Your task to perform on an android device: Go to wifi settings Image 0: 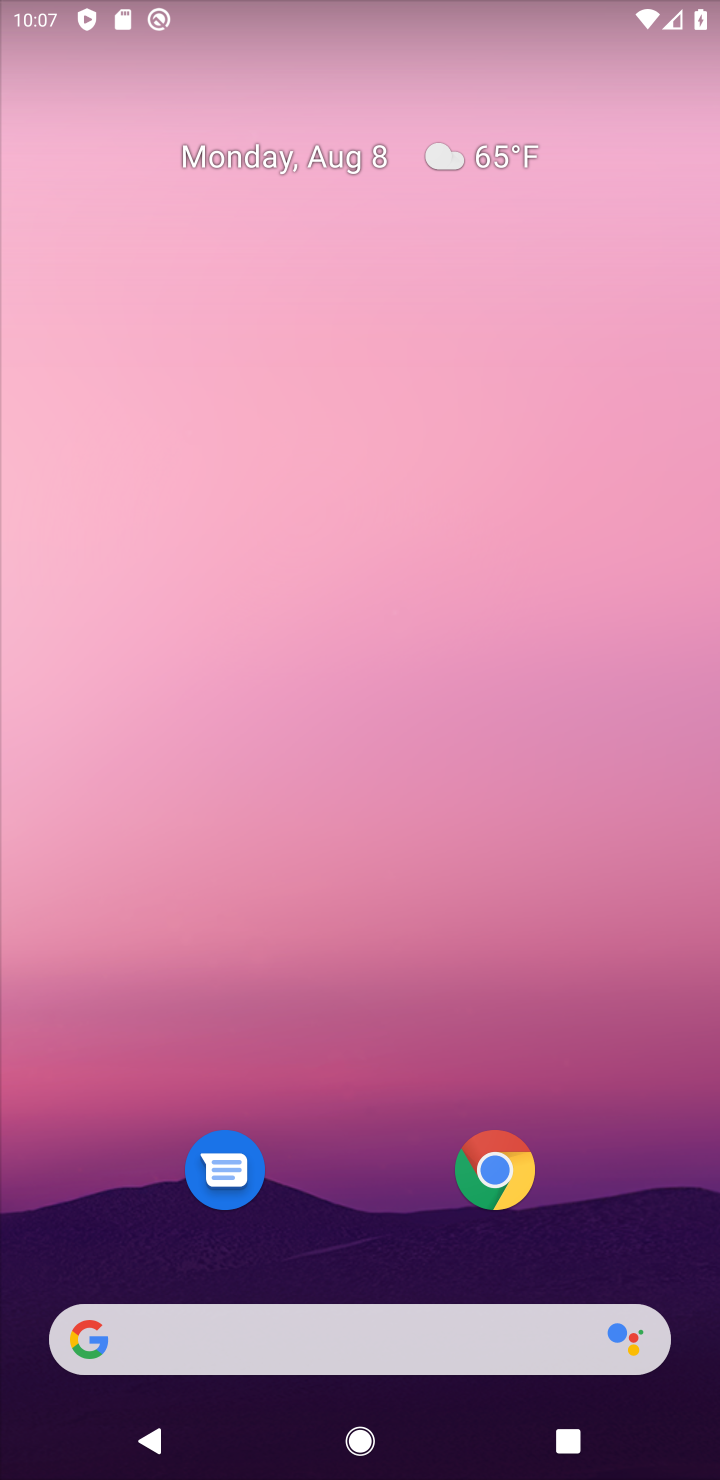
Step 0: drag from (355, 1176) to (452, 142)
Your task to perform on an android device: Go to wifi settings Image 1: 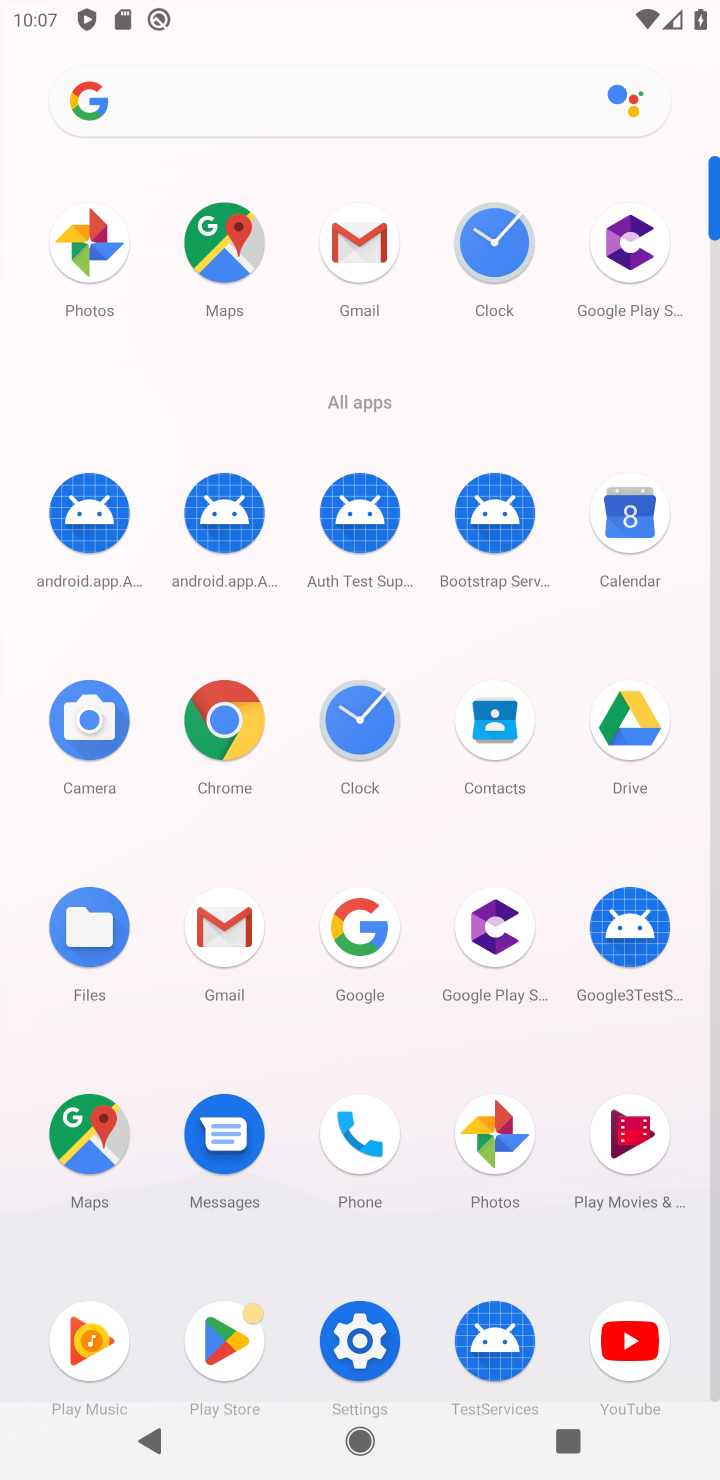
Step 1: click (337, 1361)
Your task to perform on an android device: Go to wifi settings Image 2: 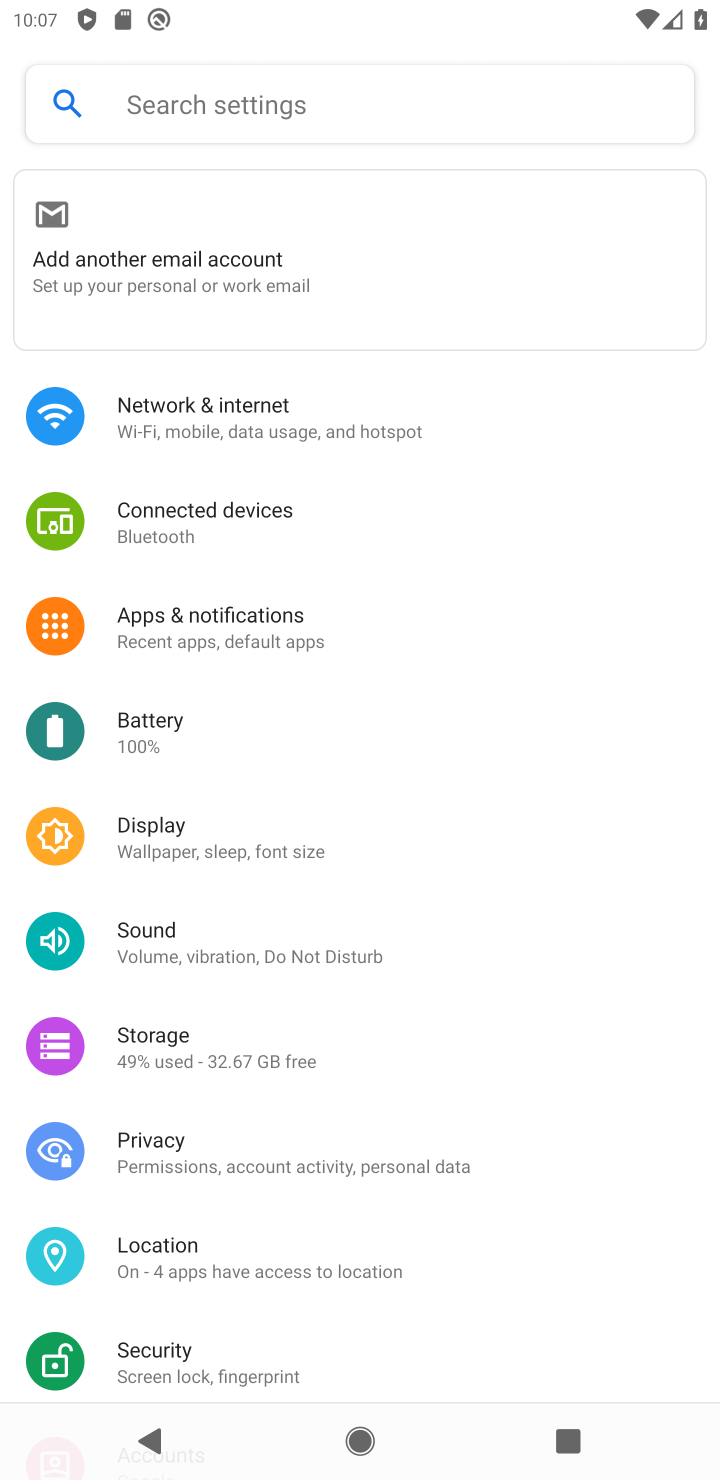
Step 2: click (241, 425)
Your task to perform on an android device: Go to wifi settings Image 3: 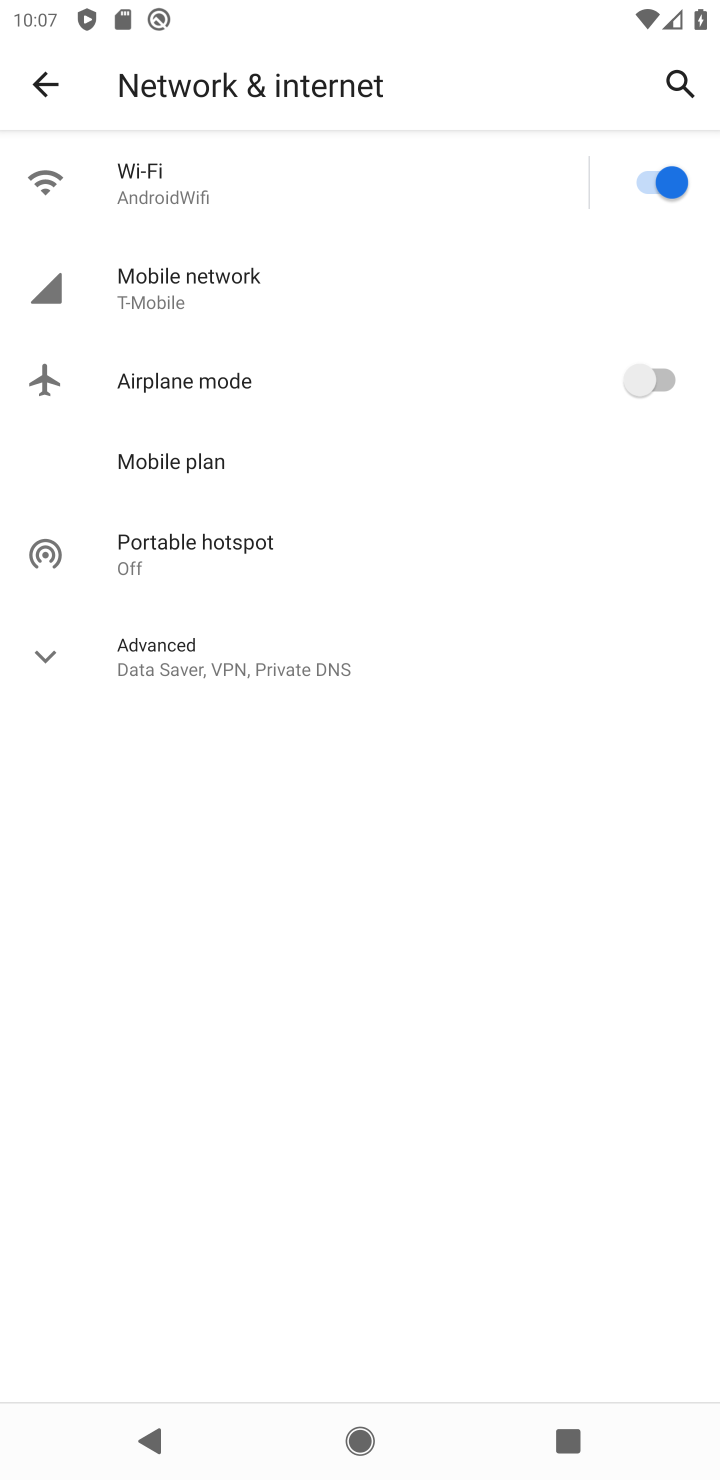
Step 3: click (156, 177)
Your task to perform on an android device: Go to wifi settings Image 4: 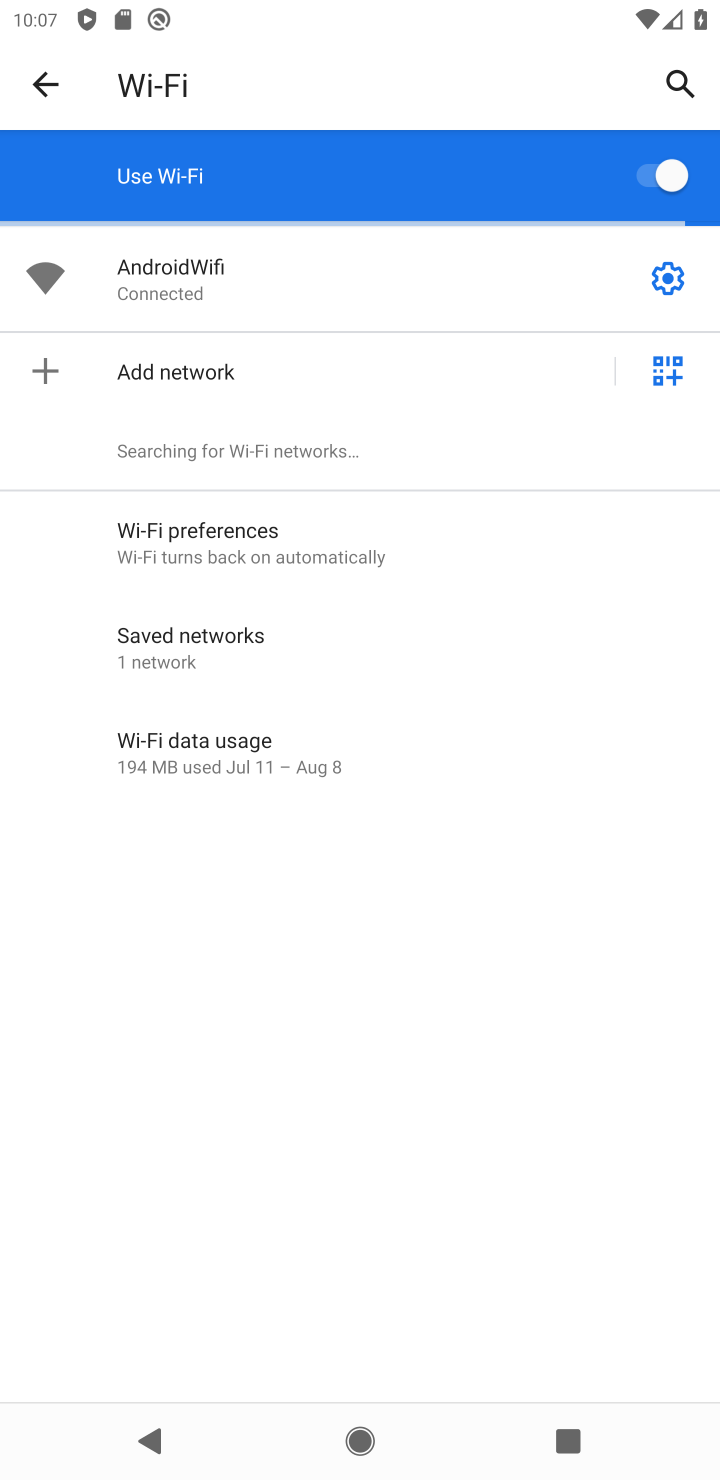
Step 4: click (160, 290)
Your task to perform on an android device: Go to wifi settings Image 5: 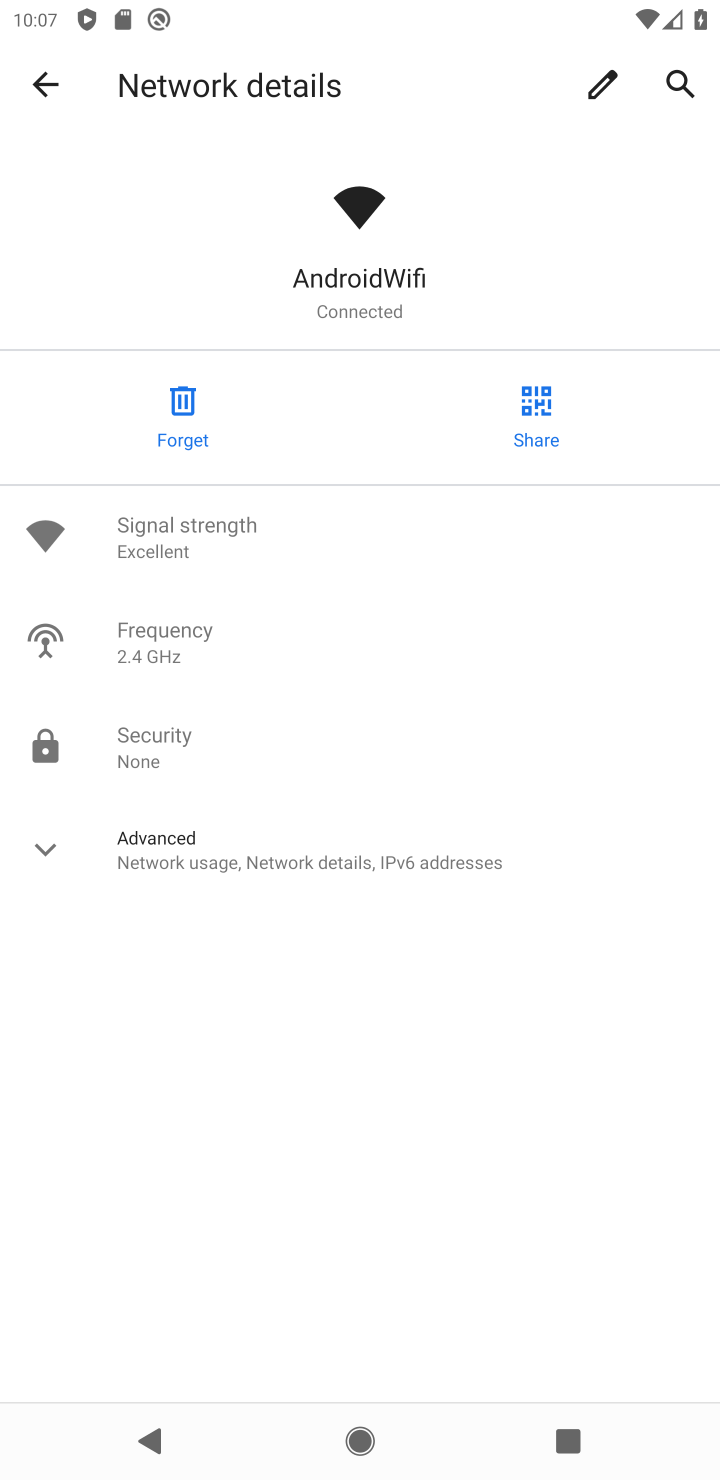
Step 5: task complete